Your task to perform on an android device: Open accessibility settings Image 0: 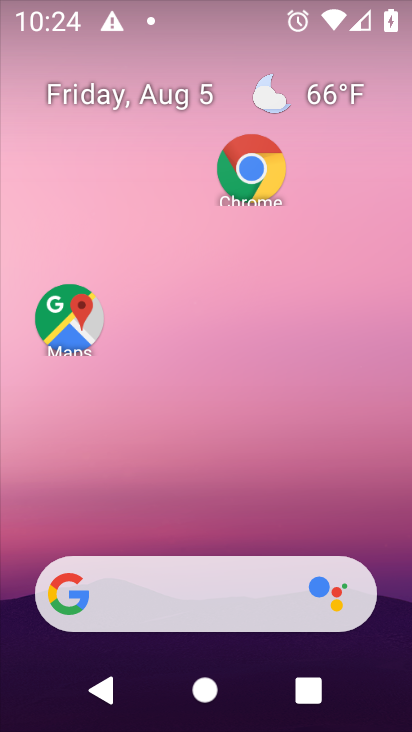
Step 0: drag from (196, 468) to (193, 165)
Your task to perform on an android device: Open accessibility settings Image 1: 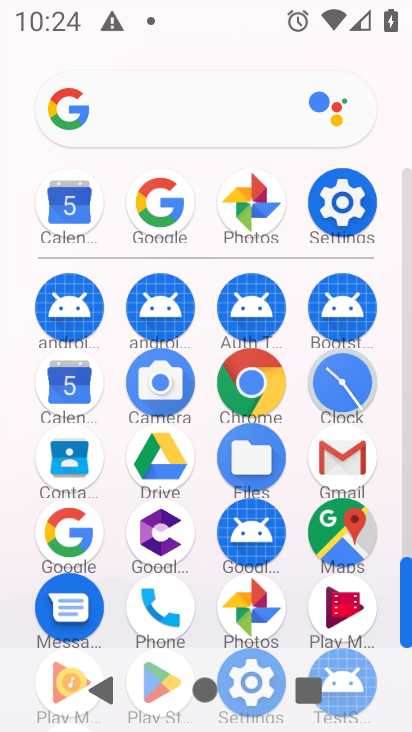
Step 1: click (342, 198)
Your task to perform on an android device: Open accessibility settings Image 2: 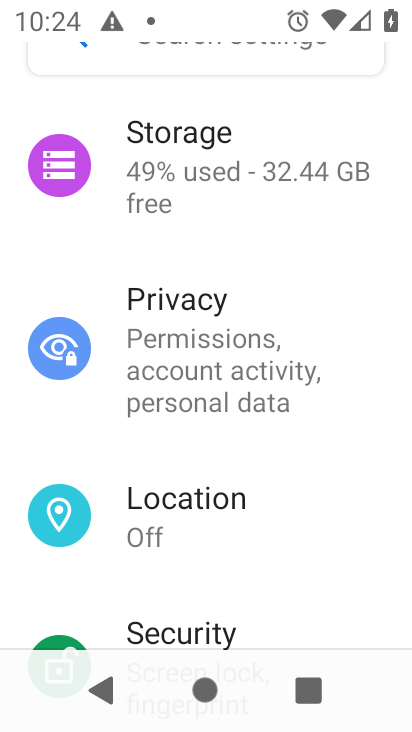
Step 2: drag from (273, 265) to (230, 564)
Your task to perform on an android device: Open accessibility settings Image 3: 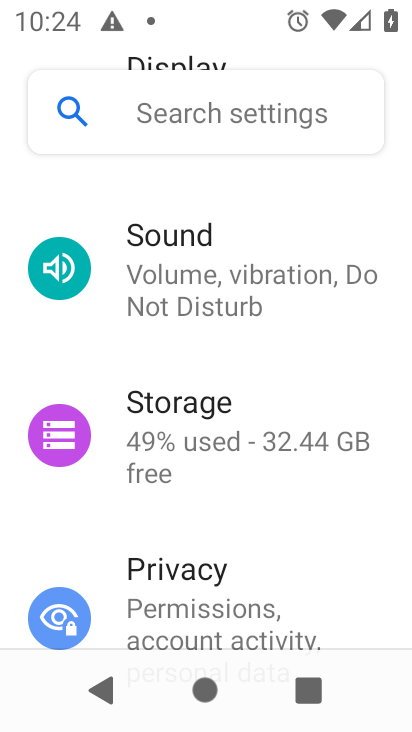
Step 3: drag from (276, 298) to (247, 569)
Your task to perform on an android device: Open accessibility settings Image 4: 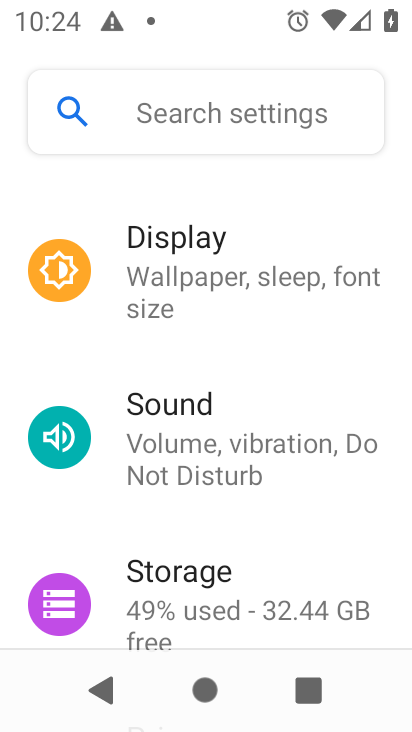
Step 4: drag from (205, 254) to (201, 599)
Your task to perform on an android device: Open accessibility settings Image 5: 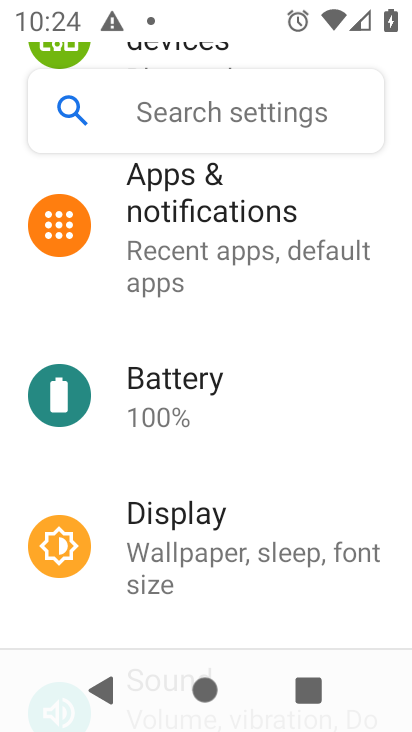
Step 5: drag from (218, 256) to (223, 562)
Your task to perform on an android device: Open accessibility settings Image 6: 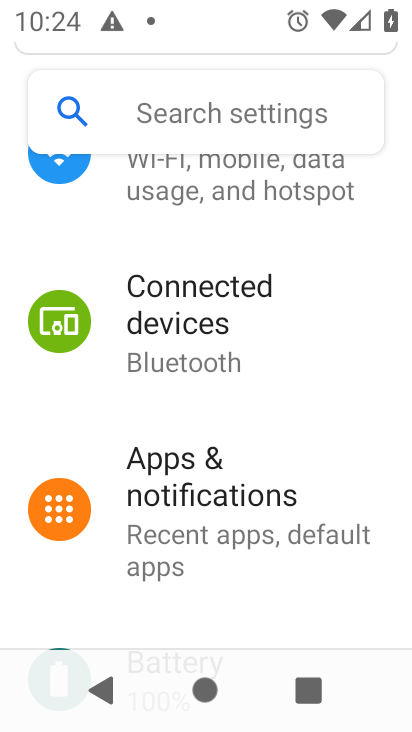
Step 6: drag from (260, 223) to (265, 459)
Your task to perform on an android device: Open accessibility settings Image 7: 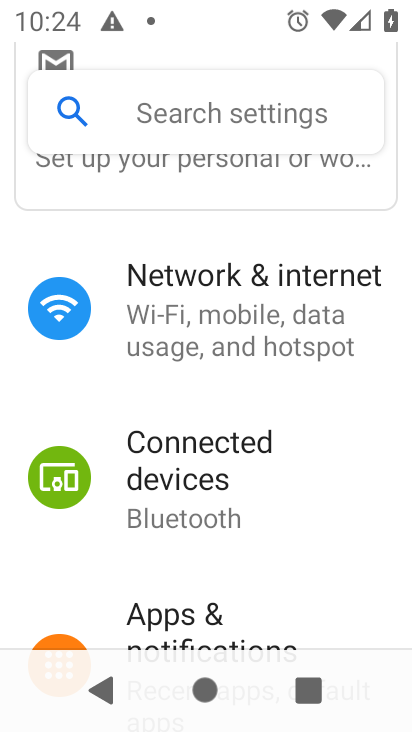
Step 7: drag from (256, 553) to (230, 190)
Your task to perform on an android device: Open accessibility settings Image 8: 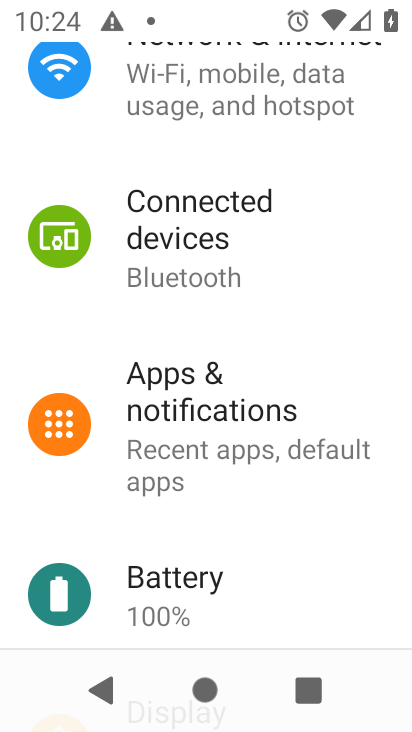
Step 8: drag from (232, 597) to (190, 187)
Your task to perform on an android device: Open accessibility settings Image 9: 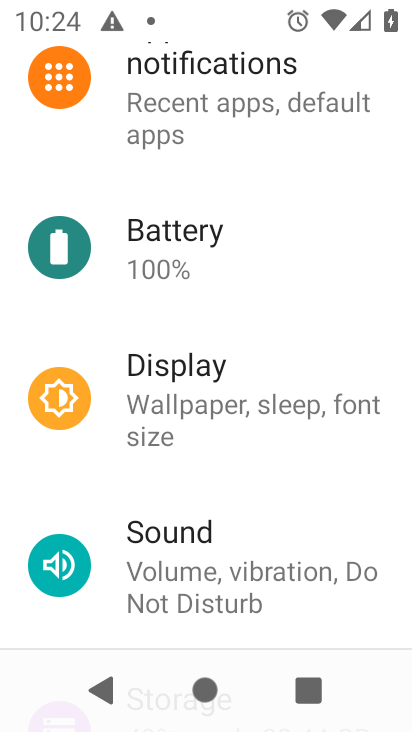
Step 9: drag from (247, 597) to (258, 189)
Your task to perform on an android device: Open accessibility settings Image 10: 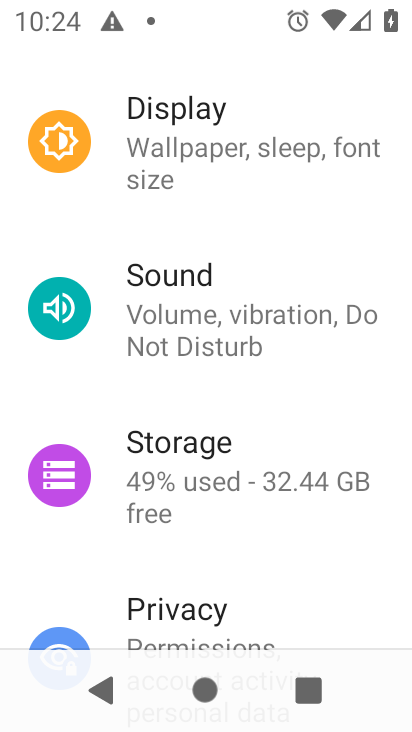
Step 10: drag from (257, 548) to (255, 180)
Your task to perform on an android device: Open accessibility settings Image 11: 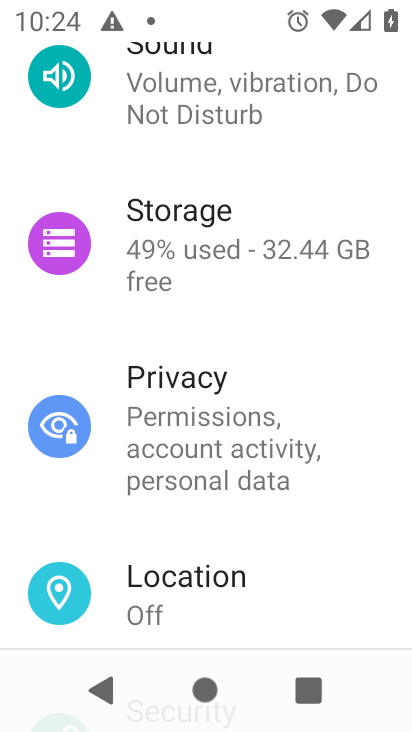
Step 11: drag from (239, 608) to (217, 124)
Your task to perform on an android device: Open accessibility settings Image 12: 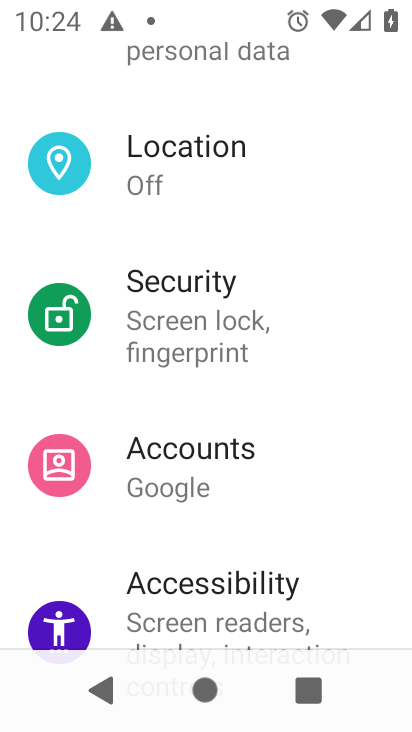
Step 12: click (228, 599)
Your task to perform on an android device: Open accessibility settings Image 13: 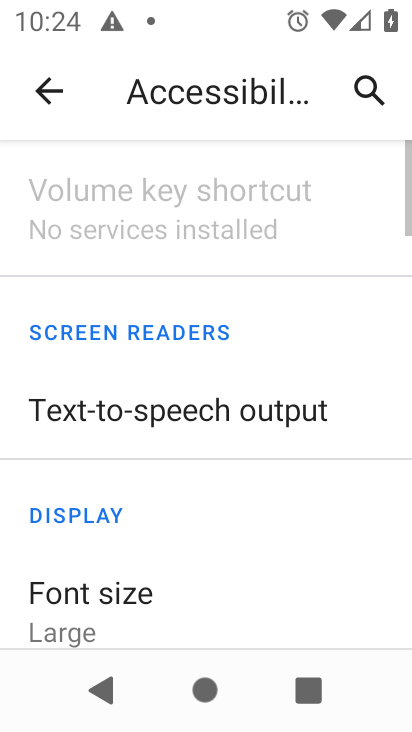
Step 13: task complete